Your task to perform on an android device: What's on my calendar tomorrow? Image 0: 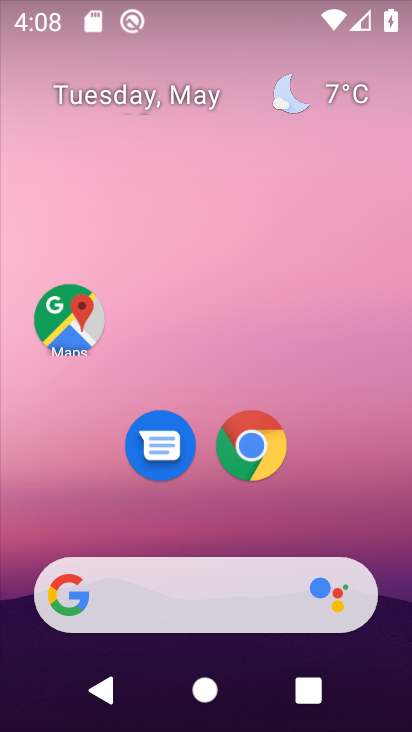
Step 0: drag from (225, 529) to (262, 43)
Your task to perform on an android device: What's on my calendar tomorrow? Image 1: 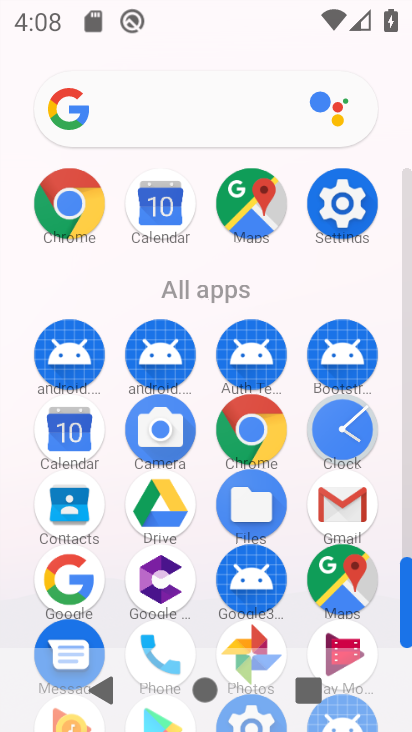
Step 1: click (89, 447)
Your task to perform on an android device: What's on my calendar tomorrow? Image 2: 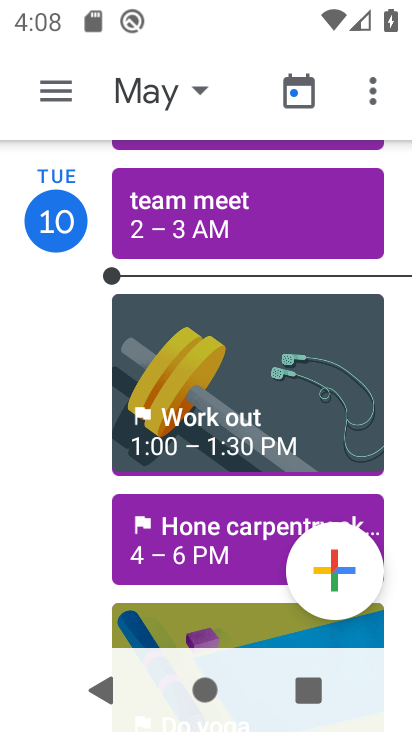
Step 2: click (61, 94)
Your task to perform on an android device: What's on my calendar tomorrow? Image 3: 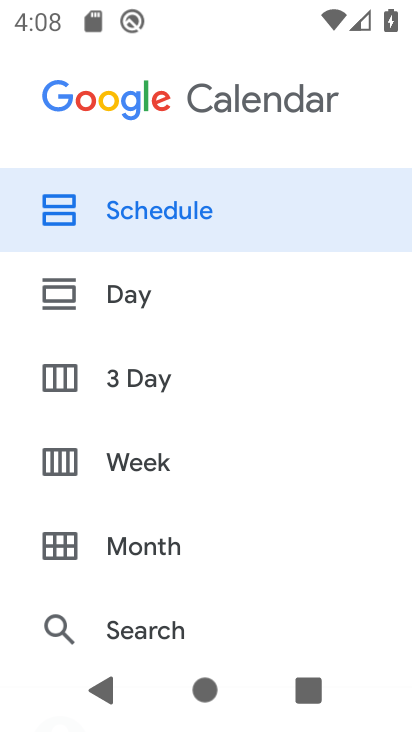
Step 3: click (167, 391)
Your task to perform on an android device: What's on my calendar tomorrow? Image 4: 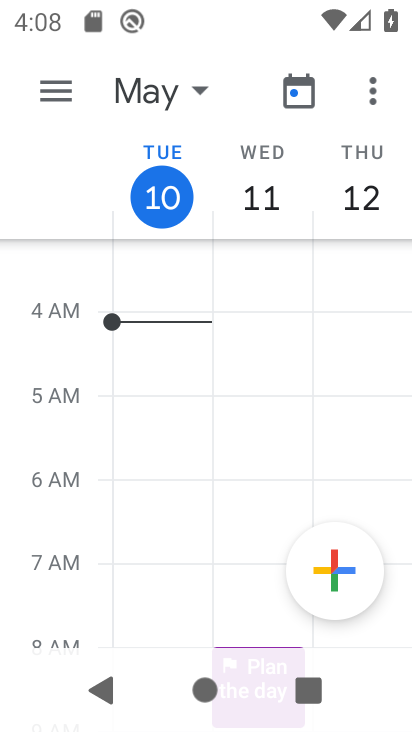
Step 4: task complete